Your task to perform on an android device: toggle data saver in the chrome app Image 0: 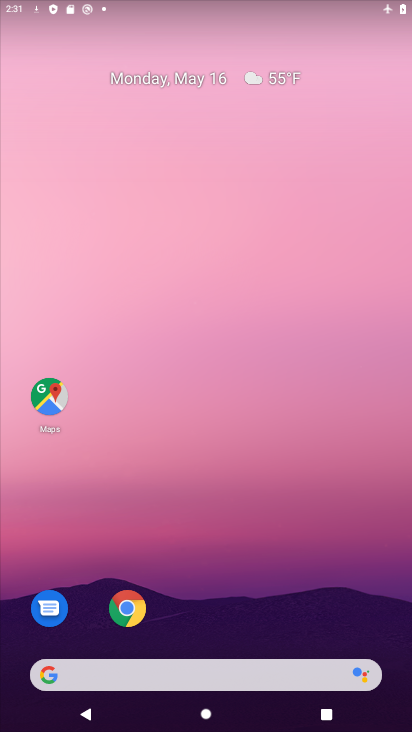
Step 0: click (148, 611)
Your task to perform on an android device: toggle data saver in the chrome app Image 1: 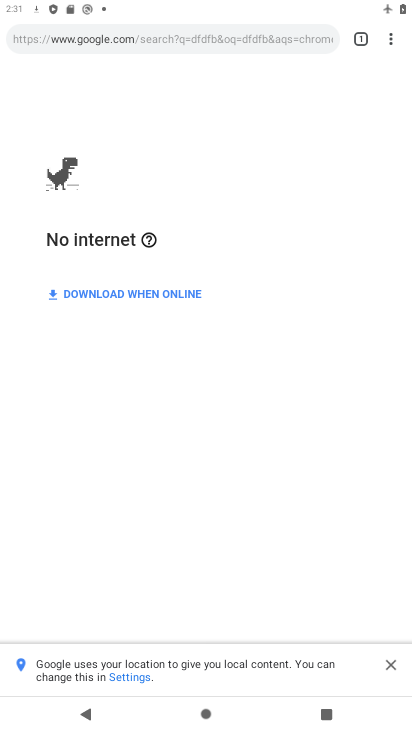
Step 1: click (388, 39)
Your task to perform on an android device: toggle data saver in the chrome app Image 2: 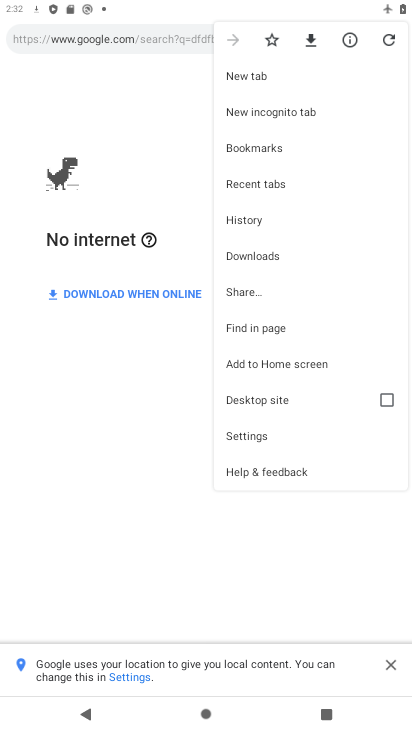
Step 2: click (258, 430)
Your task to perform on an android device: toggle data saver in the chrome app Image 3: 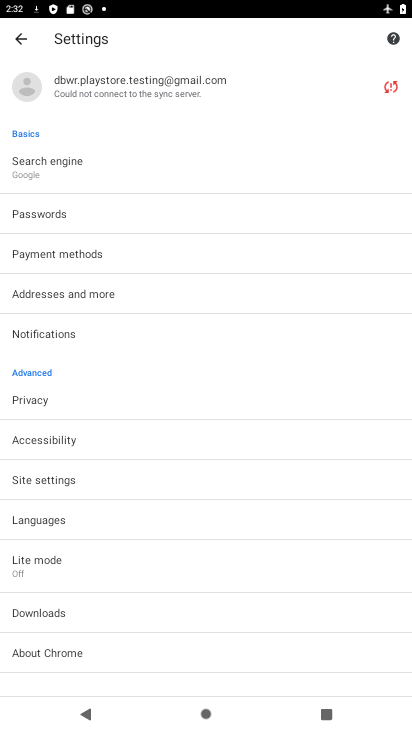
Step 3: drag from (169, 583) to (186, 370)
Your task to perform on an android device: toggle data saver in the chrome app Image 4: 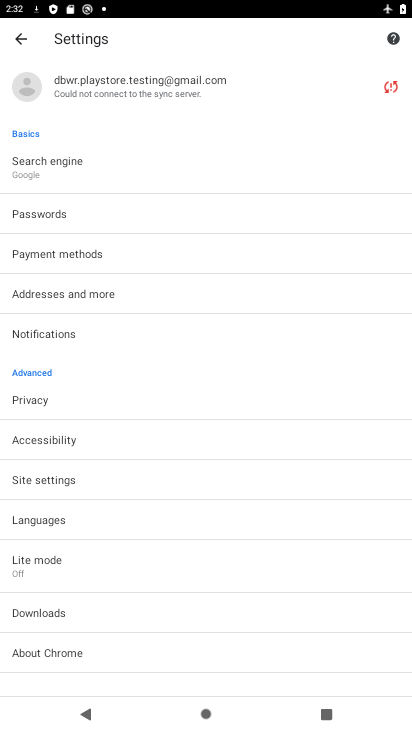
Step 4: click (69, 556)
Your task to perform on an android device: toggle data saver in the chrome app Image 5: 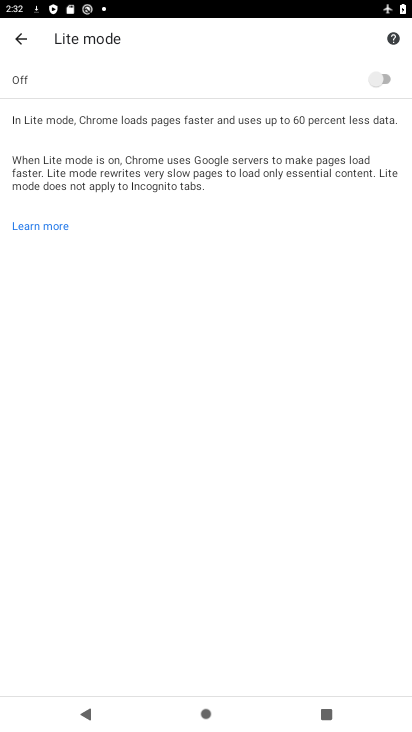
Step 5: click (385, 77)
Your task to perform on an android device: toggle data saver in the chrome app Image 6: 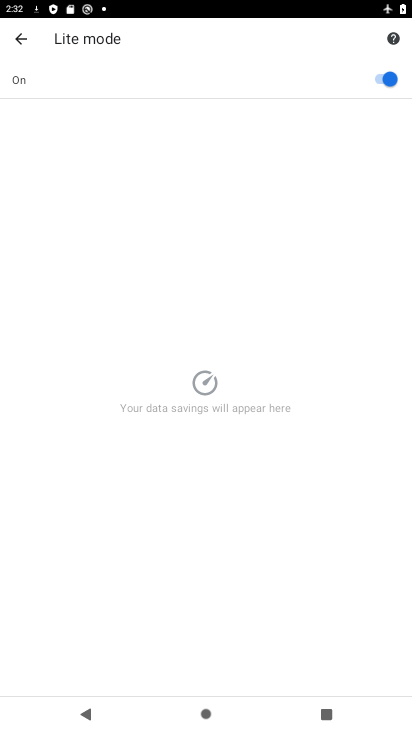
Step 6: task complete